Your task to perform on an android device: uninstall "File Manager" Image 0: 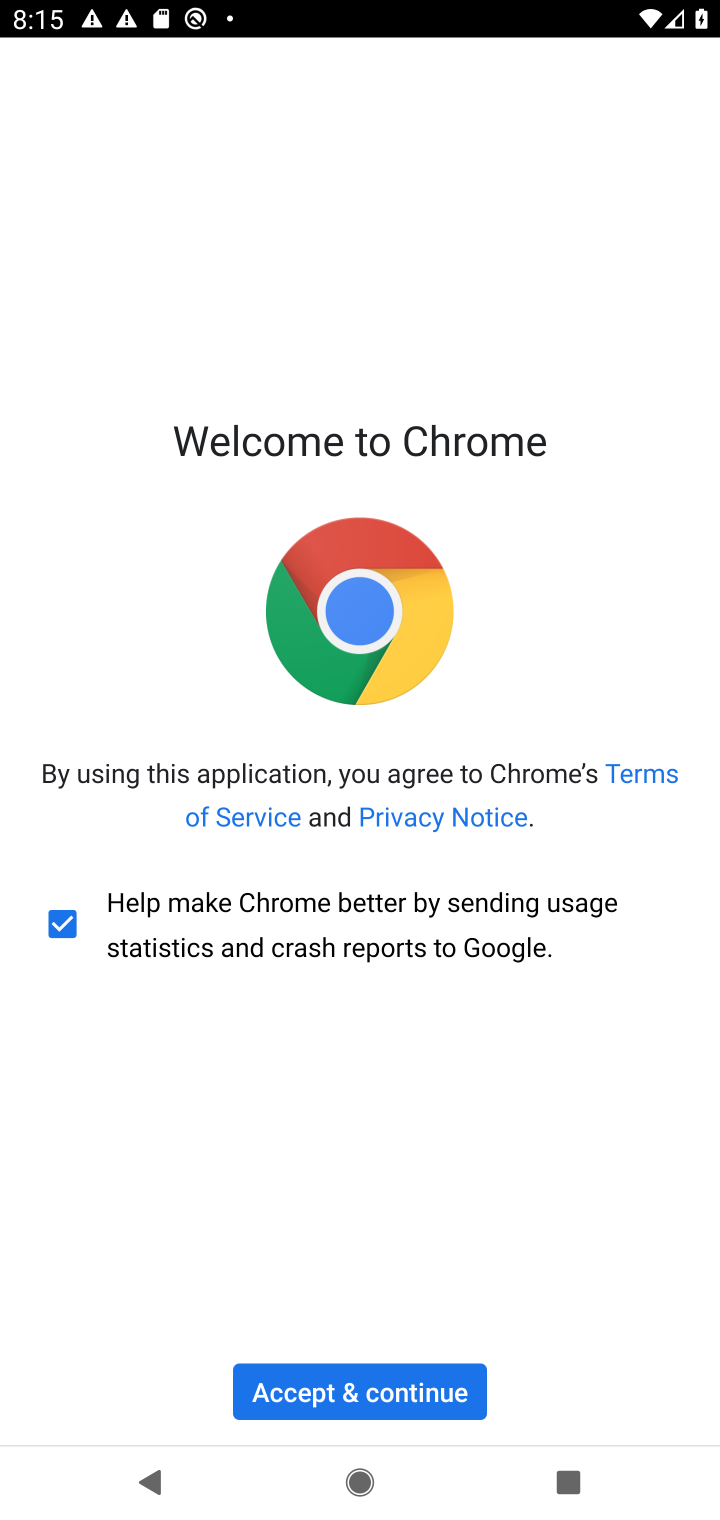
Step 0: press home button
Your task to perform on an android device: uninstall "File Manager" Image 1: 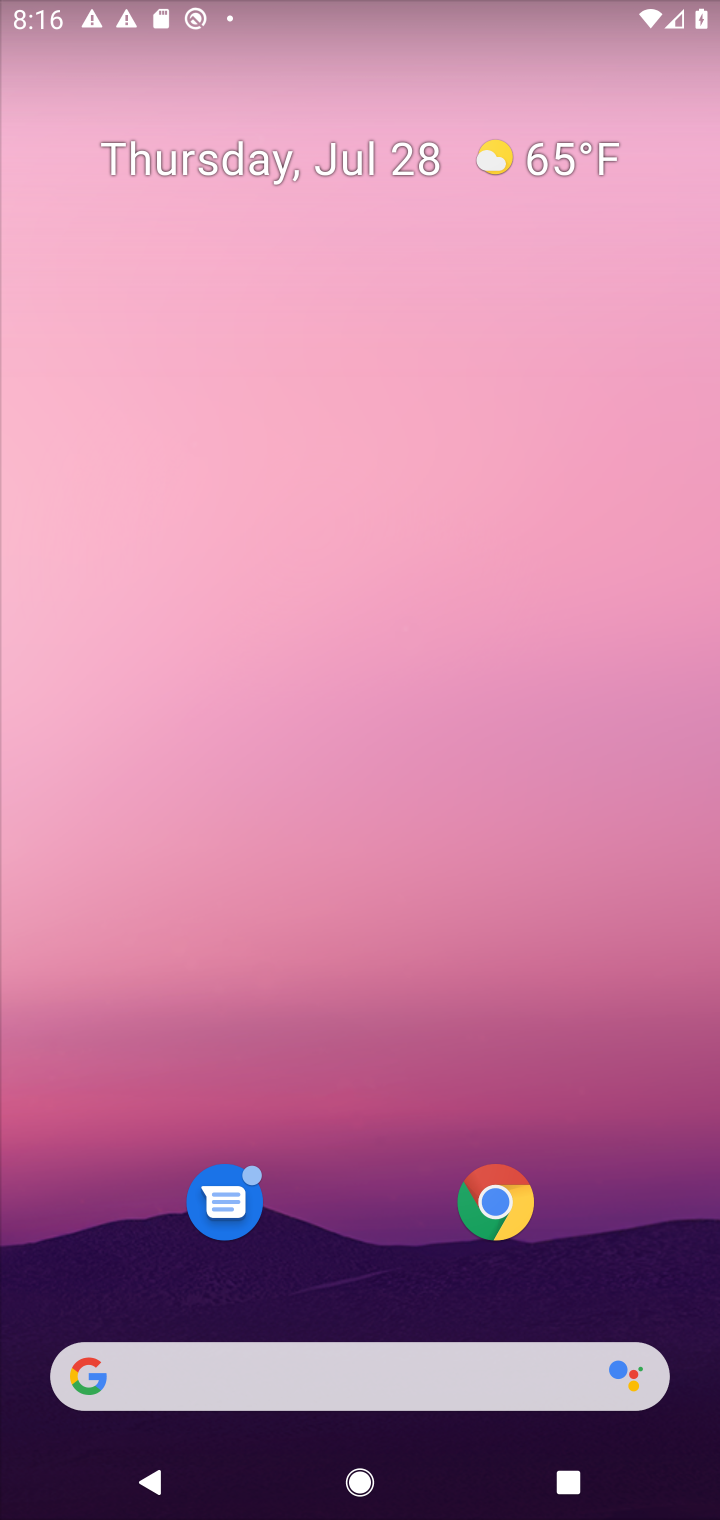
Step 1: drag from (429, 1031) to (574, 85)
Your task to perform on an android device: uninstall "File Manager" Image 2: 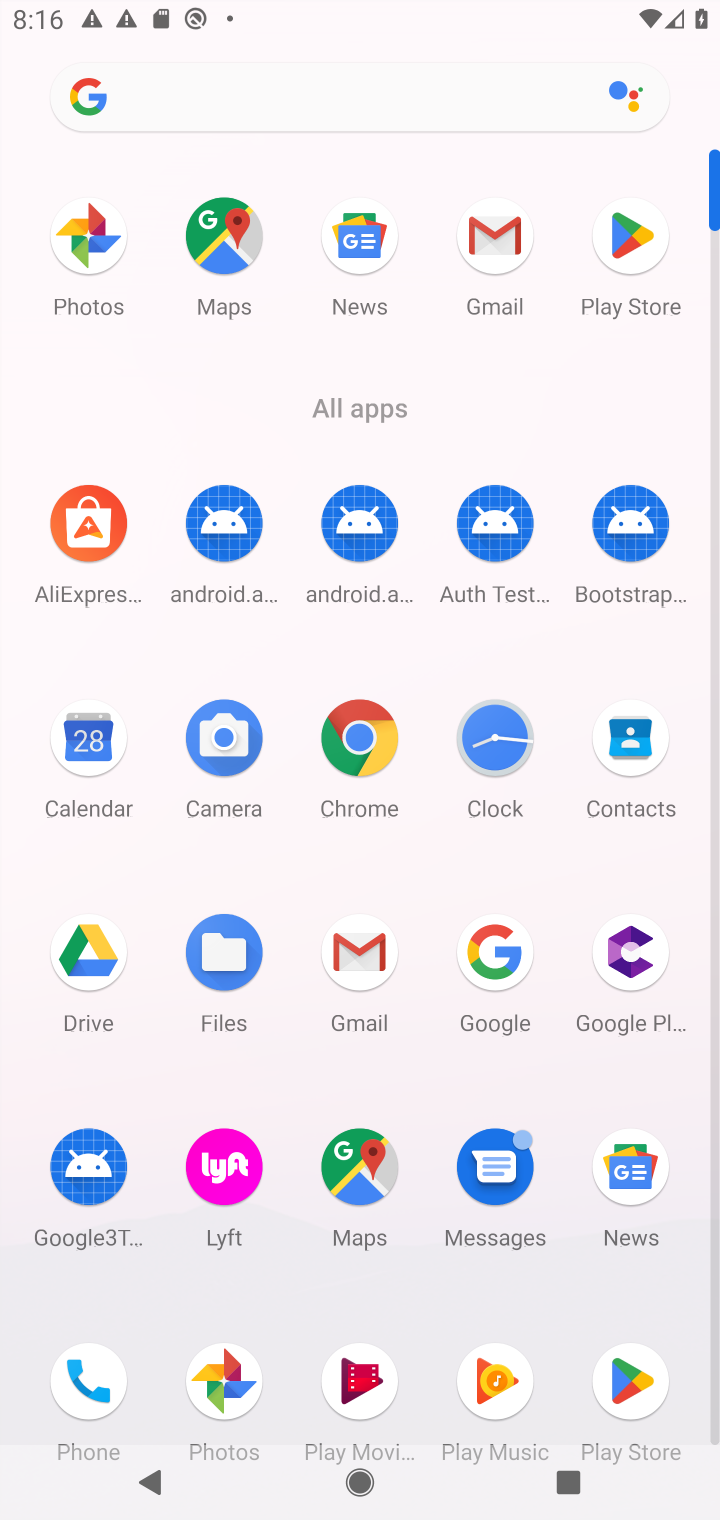
Step 2: click (625, 217)
Your task to perform on an android device: uninstall "File Manager" Image 3: 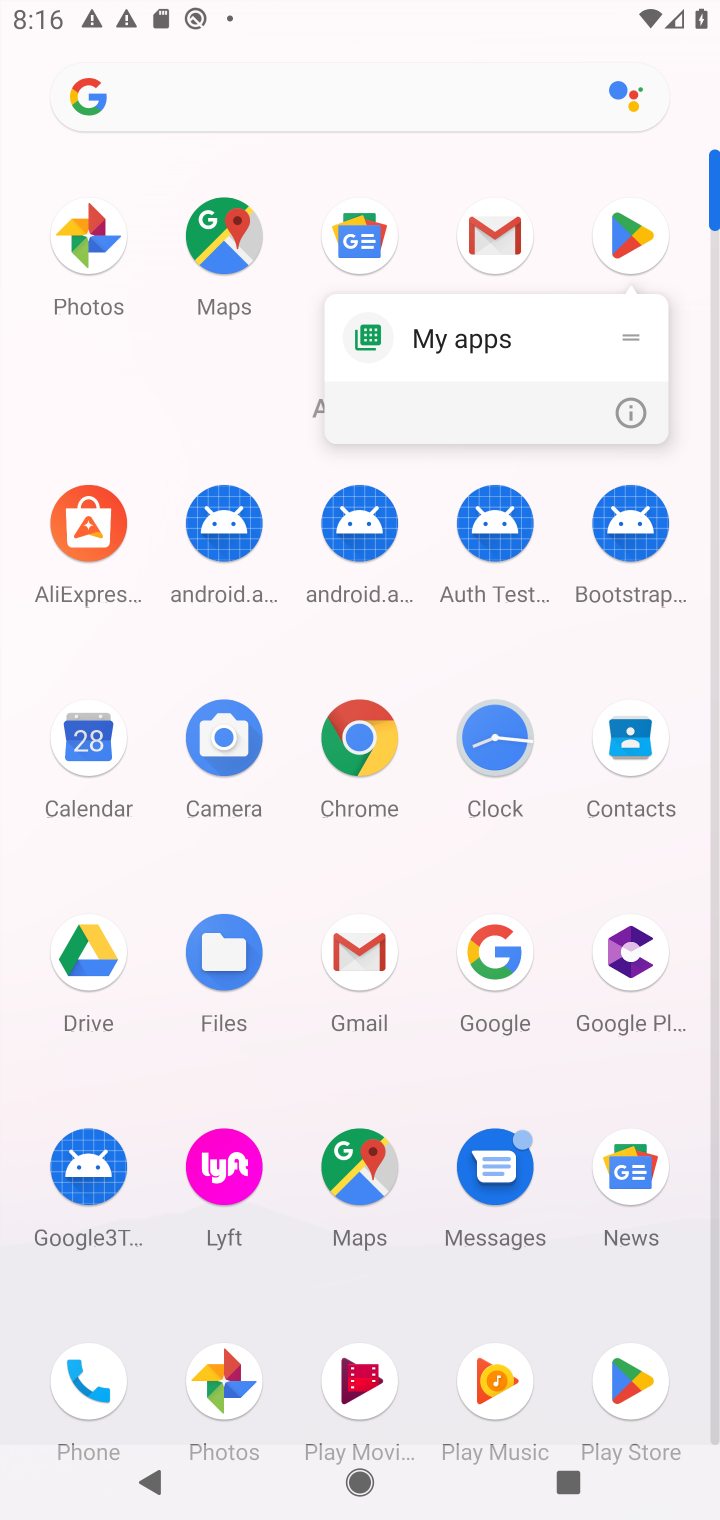
Step 3: click (627, 230)
Your task to perform on an android device: uninstall "File Manager" Image 4: 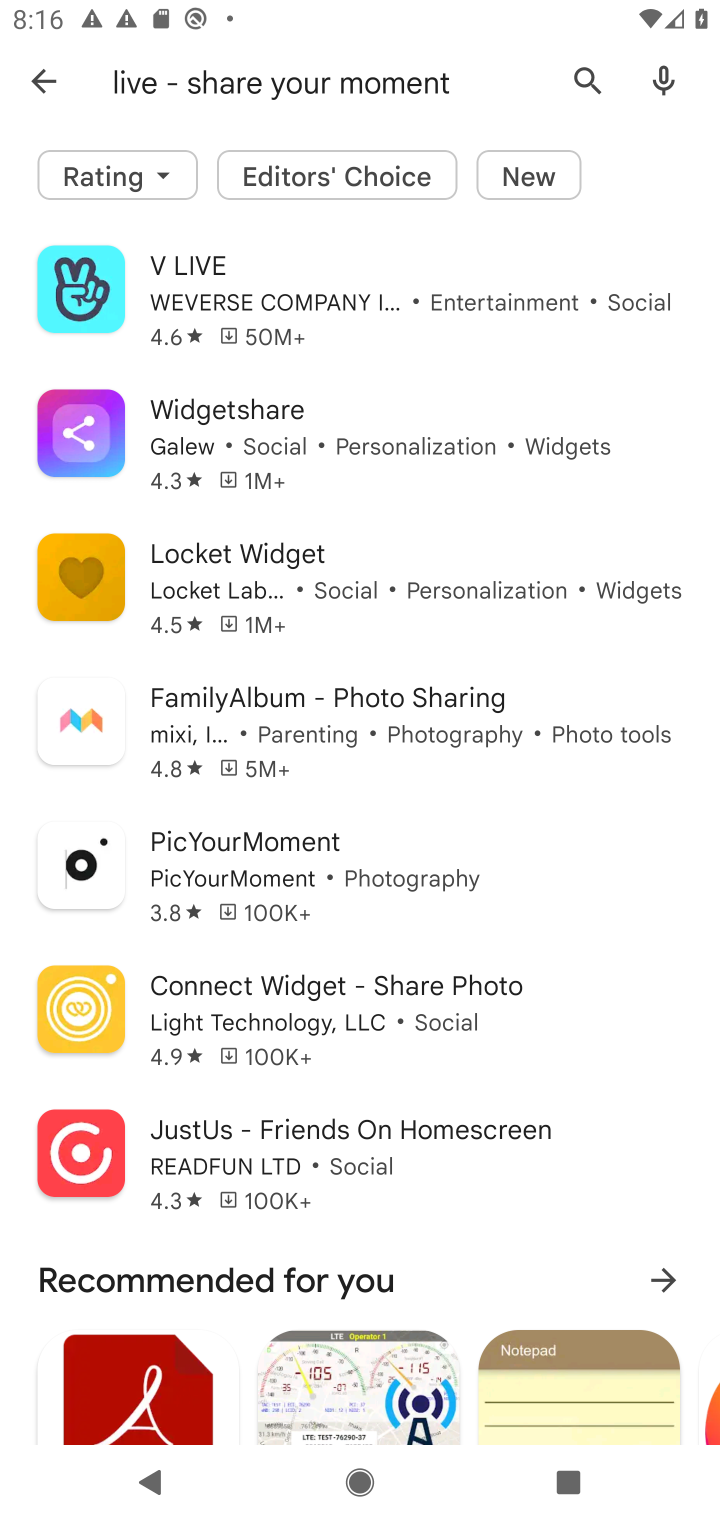
Step 4: click (583, 79)
Your task to perform on an android device: uninstall "File Manager" Image 5: 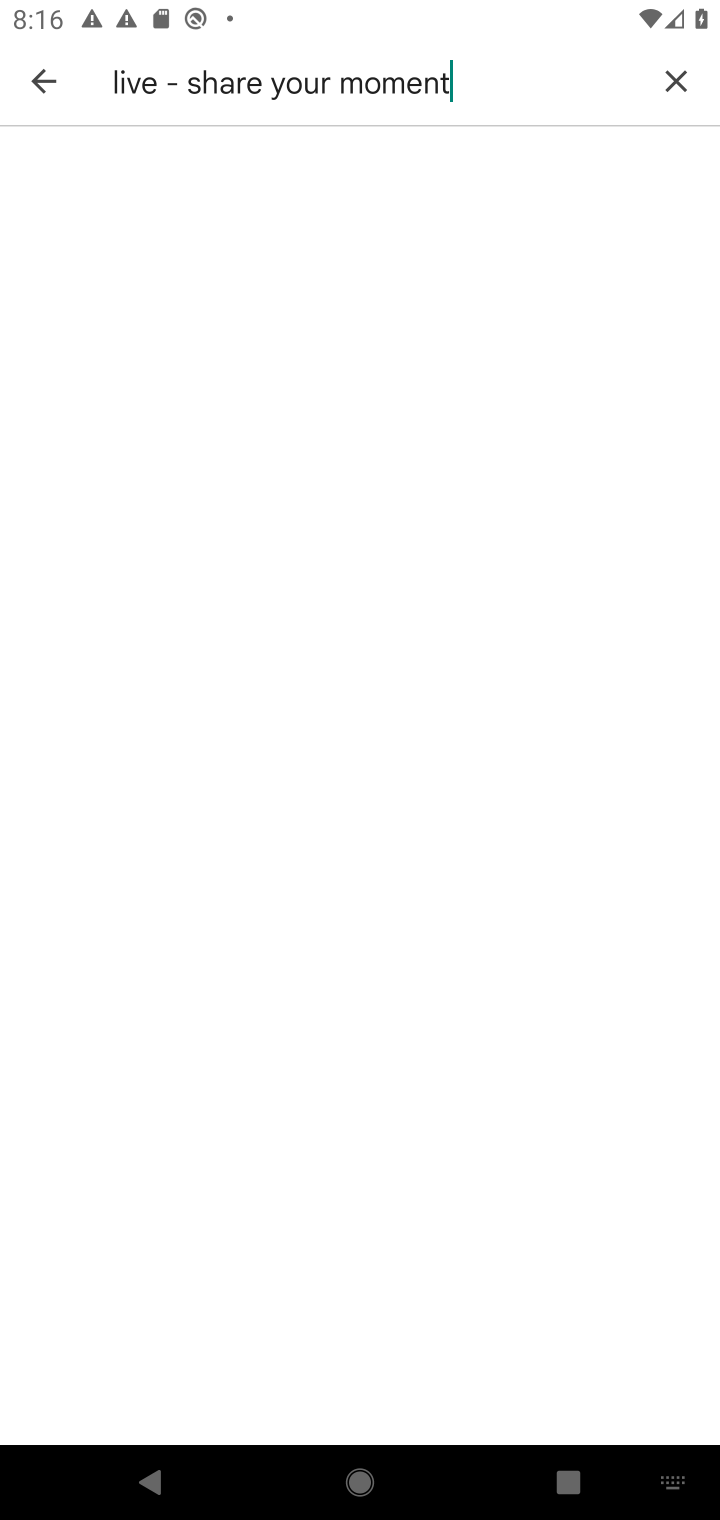
Step 5: click (672, 76)
Your task to perform on an android device: uninstall "File Manager" Image 6: 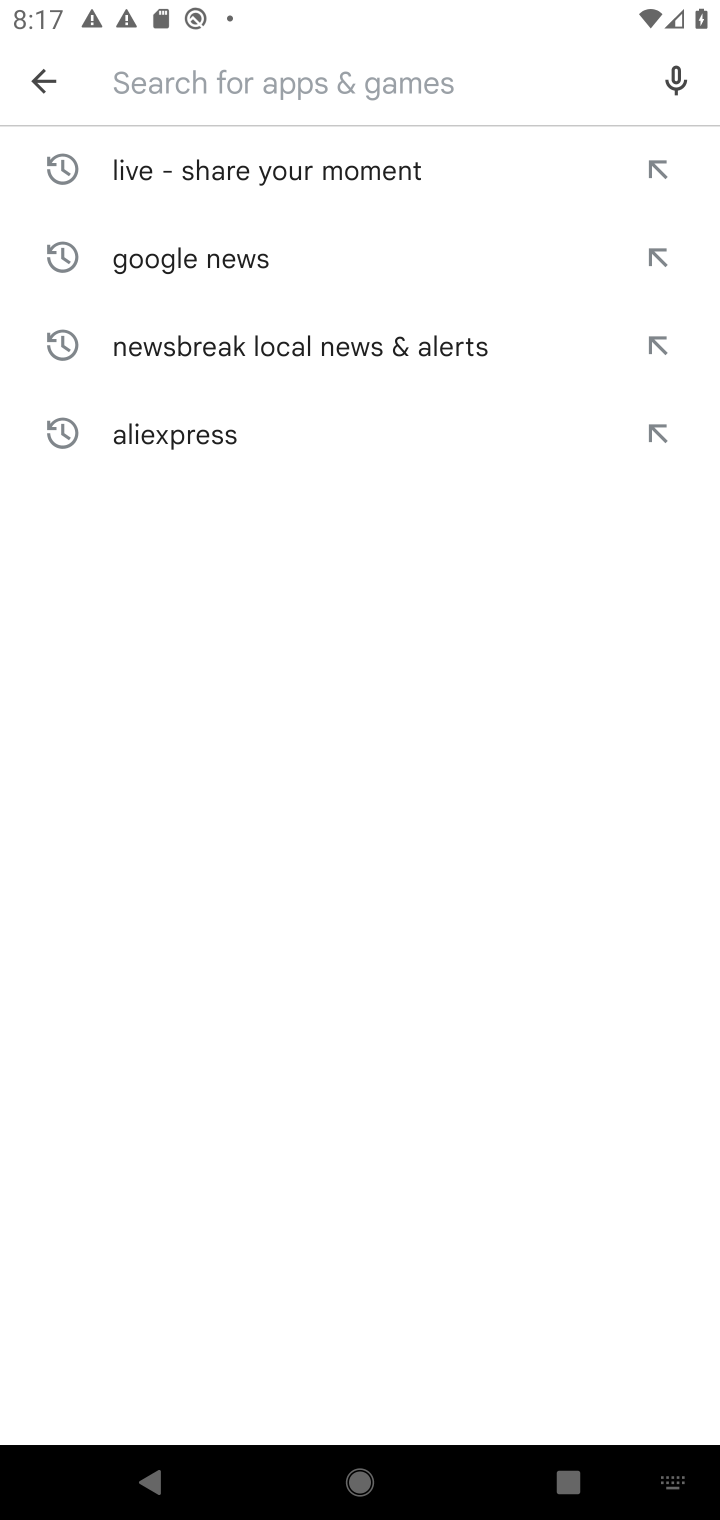
Step 6: type "file manager"
Your task to perform on an android device: uninstall "File Manager" Image 7: 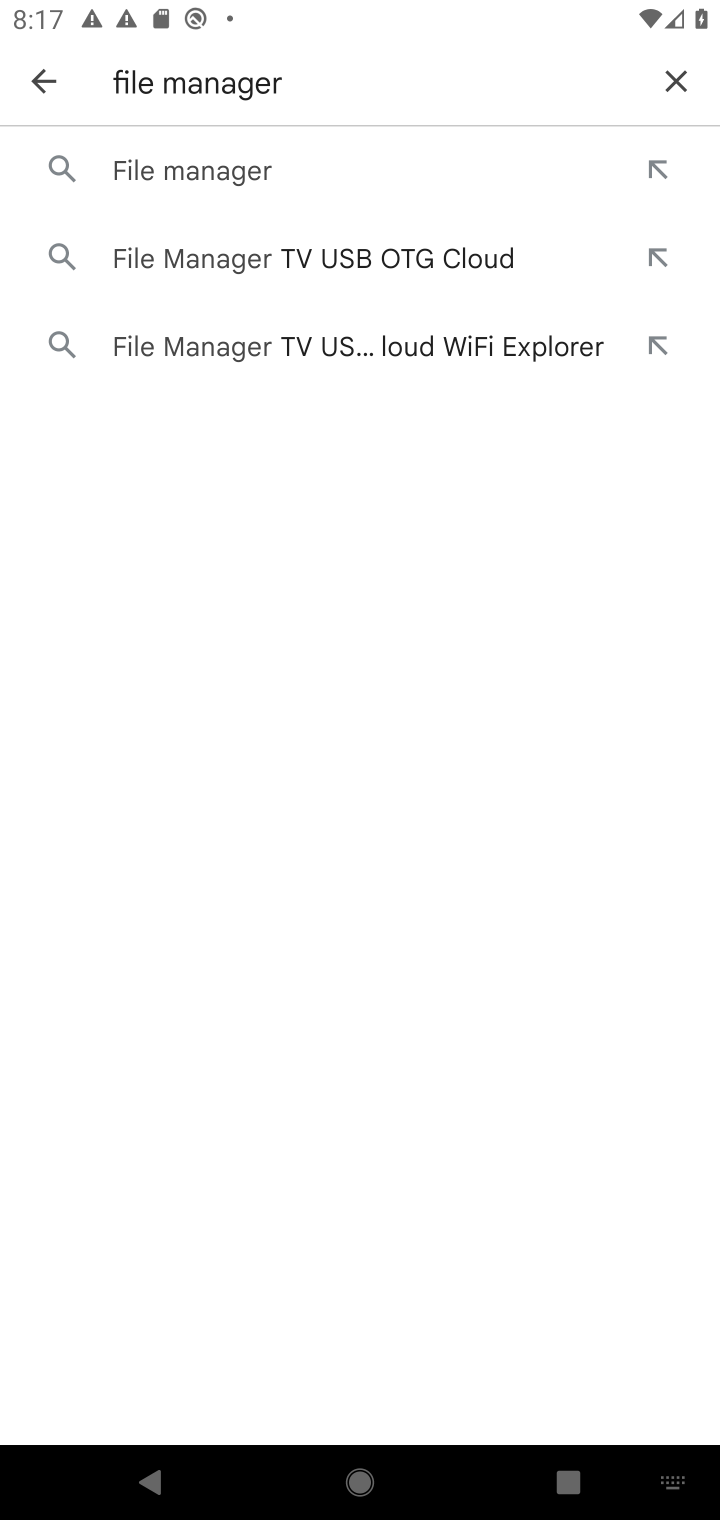
Step 7: click (277, 170)
Your task to perform on an android device: uninstall "File Manager" Image 8: 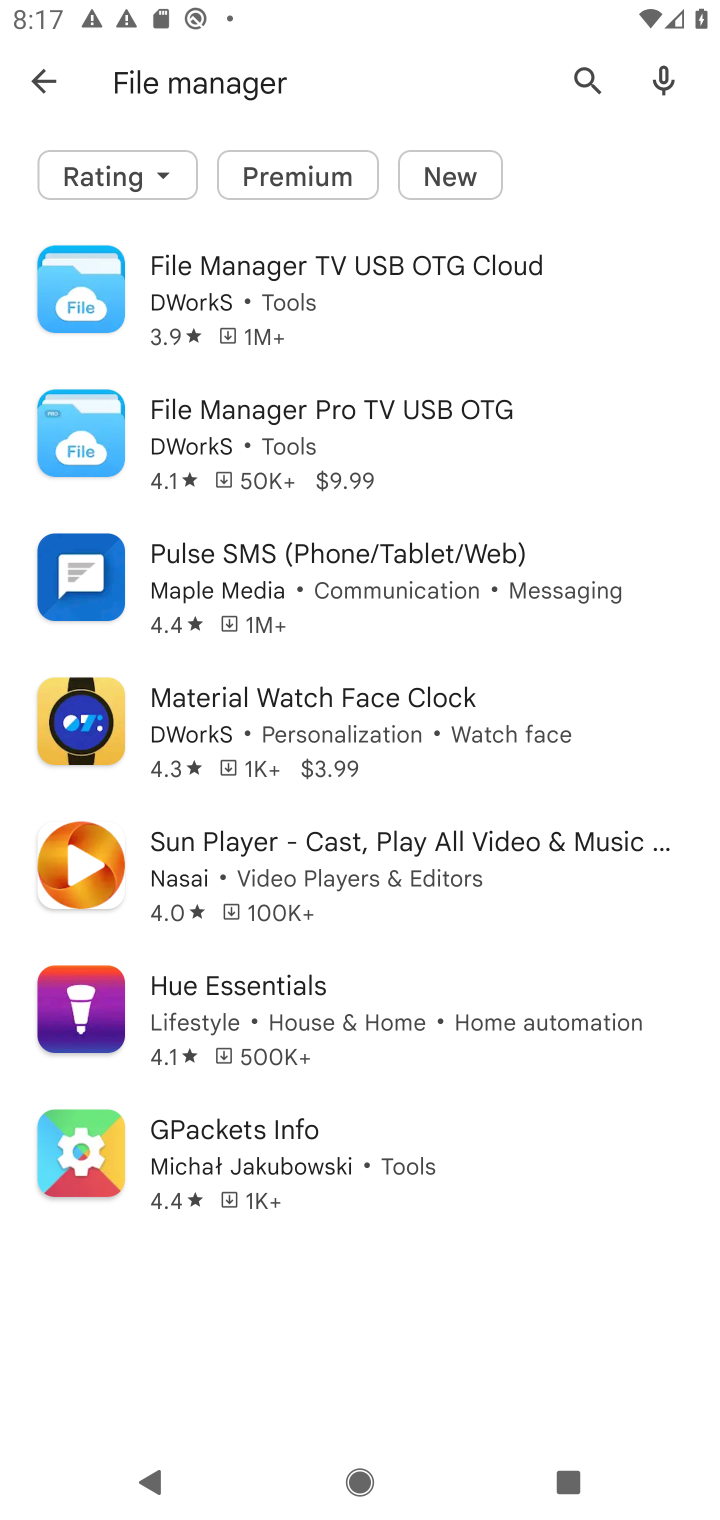
Step 8: task complete